Your task to perform on an android device: Open Amazon Image 0: 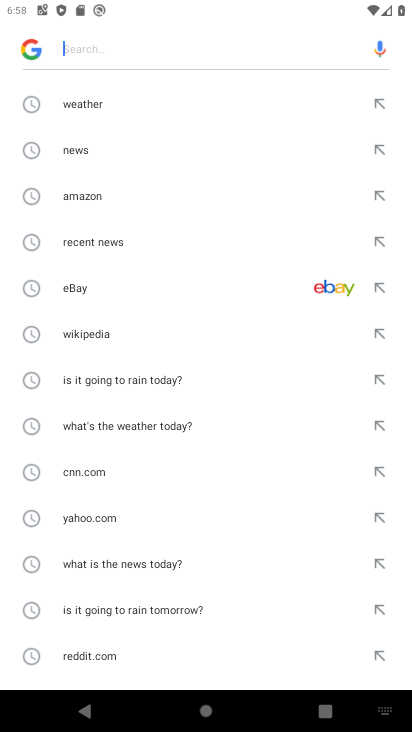
Step 0: press home button
Your task to perform on an android device: Open Amazon Image 1: 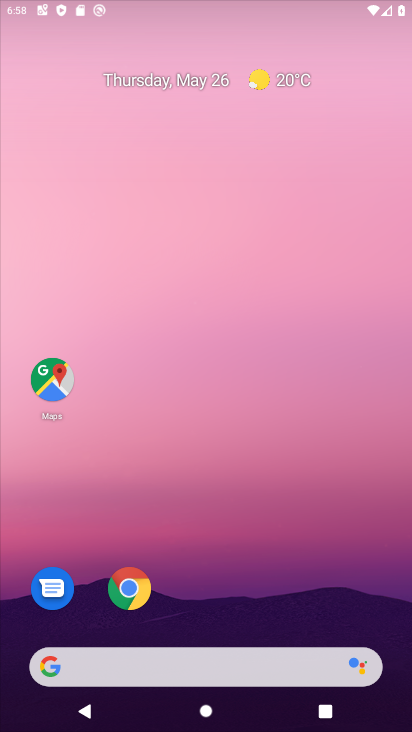
Step 1: drag from (368, 609) to (334, 70)
Your task to perform on an android device: Open Amazon Image 2: 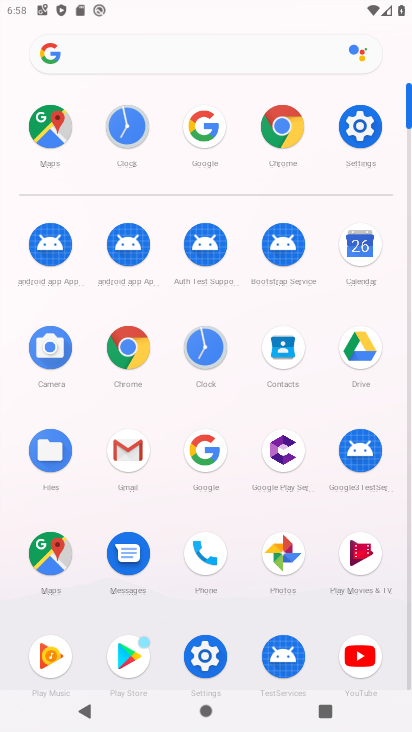
Step 2: click (200, 441)
Your task to perform on an android device: Open Amazon Image 3: 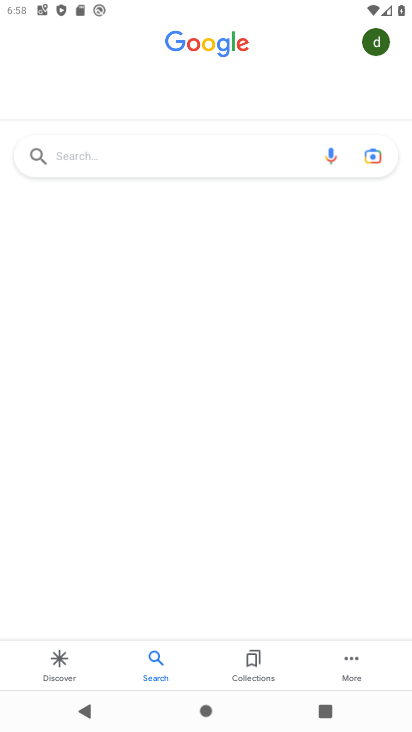
Step 3: click (138, 159)
Your task to perform on an android device: Open Amazon Image 4: 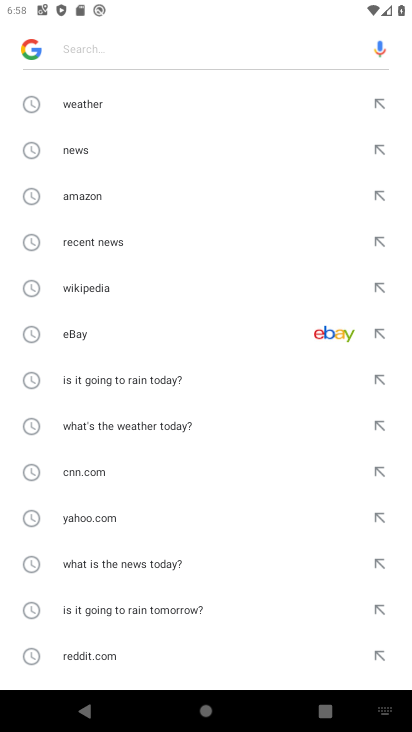
Step 4: drag from (106, 646) to (151, 212)
Your task to perform on an android device: Open Amazon Image 5: 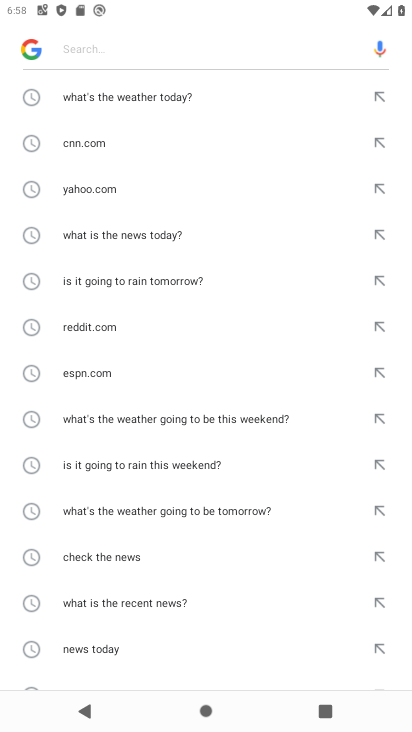
Step 5: drag from (105, 586) to (128, 342)
Your task to perform on an android device: Open Amazon Image 6: 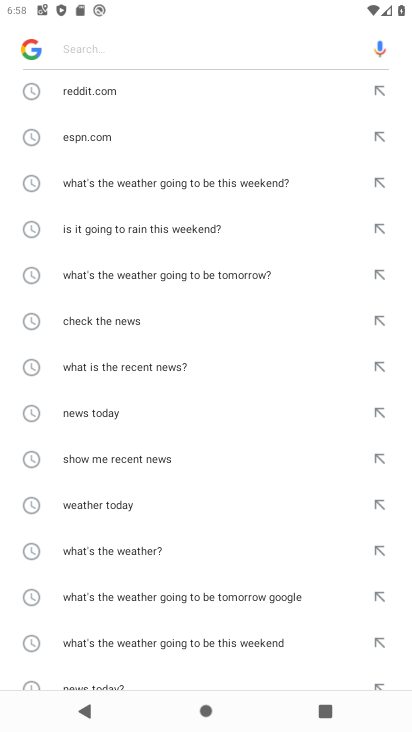
Step 6: drag from (114, 571) to (161, 225)
Your task to perform on an android device: Open Amazon Image 7: 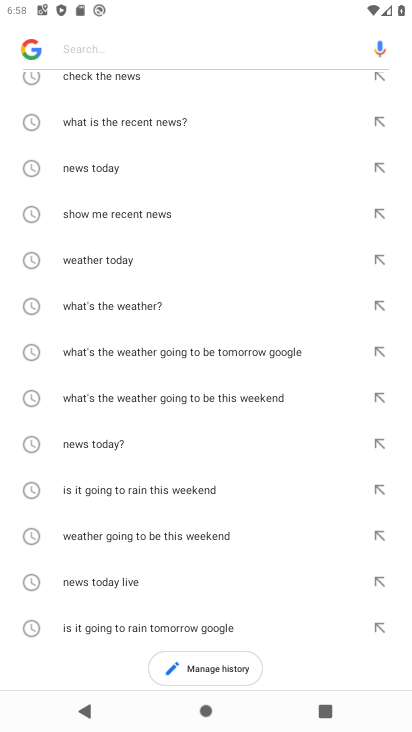
Step 7: drag from (193, 157) to (158, 674)
Your task to perform on an android device: Open Amazon Image 8: 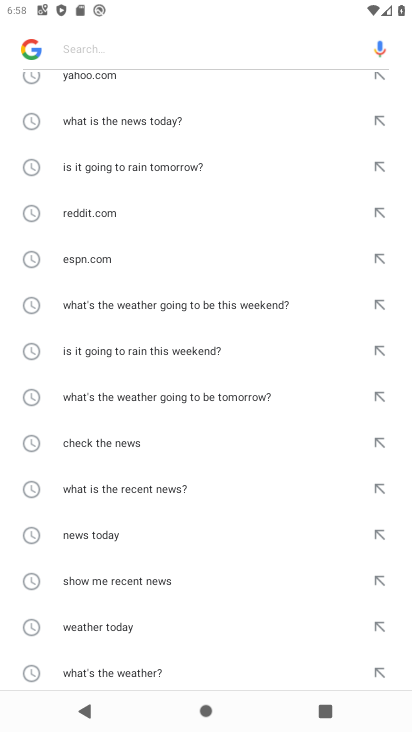
Step 8: drag from (153, 164) to (138, 594)
Your task to perform on an android device: Open Amazon Image 9: 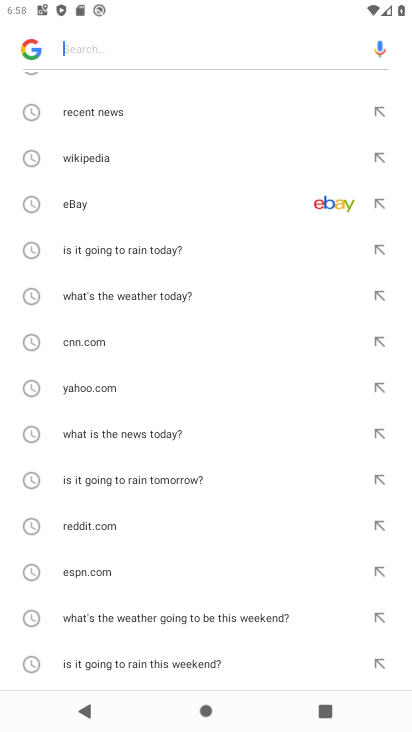
Step 9: drag from (155, 179) to (149, 535)
Your task to perform on an android device: Open Amazon Image 10: 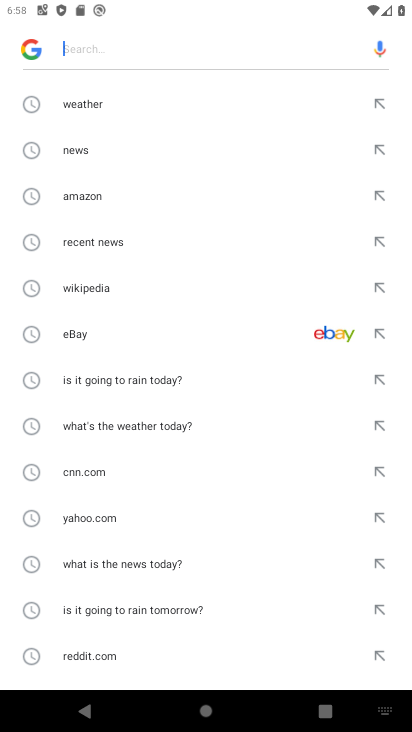
Step 10: click (103, 196)
Your task to perform on an android device: Open Amazon Image 11: 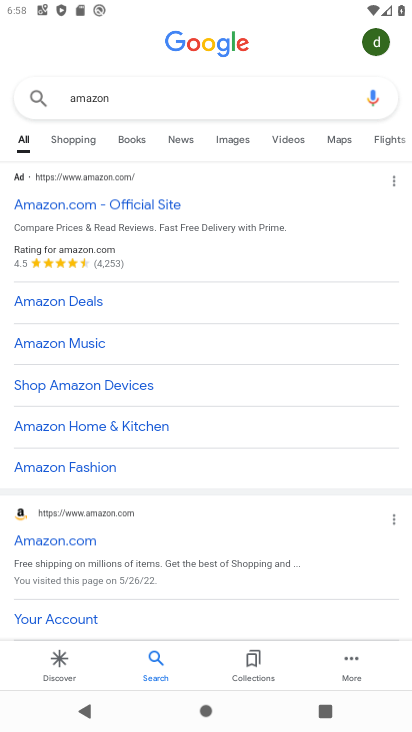
Step 11: task complete